Your task to perform on an android device: change timer sound Image 0: 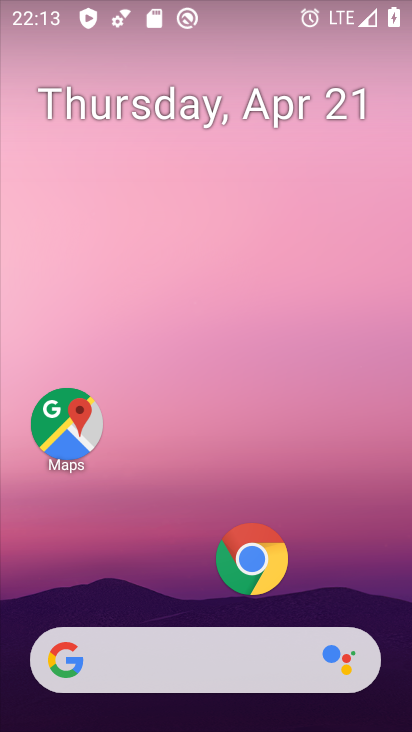
Step 0: drag from (152, 613) to (158, 226)
Your task to perform on an android device: change timer sound Image 1: 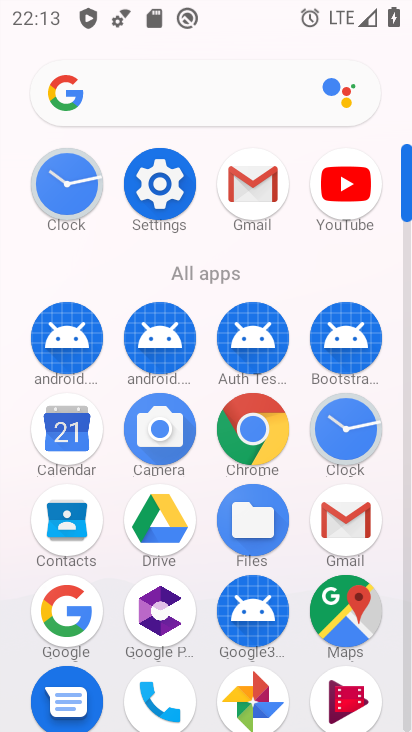
Step 1: click (356, 425)
Your task to perform on an android device: change timer sound Image 2: 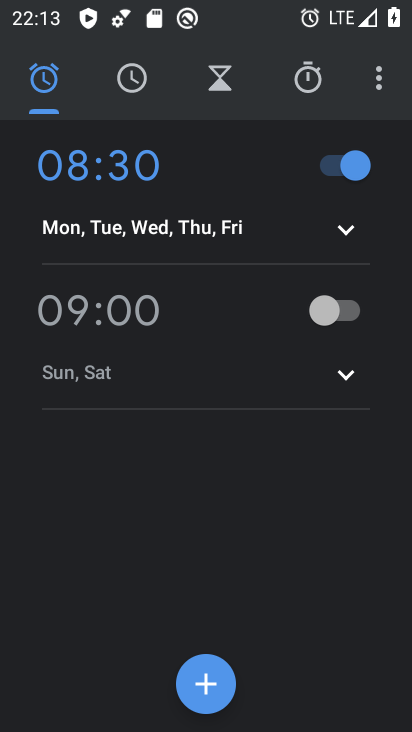
Step 2: click (382, 79)
Your task to perform on an android device: change timer sound Image 3: 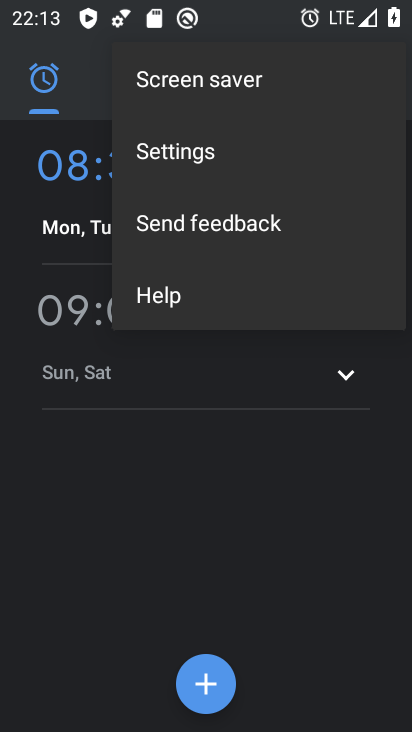
Step 3: click (194, 160)
Your task to perform on an android device: change timer sound Image 4: 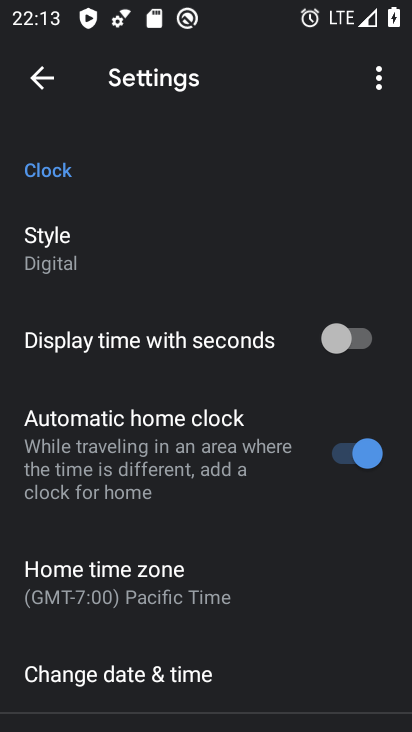
Step 4: drag from (256, 624) to (277, 244)
Your task to perform on an android device: change timer sound Image 5: 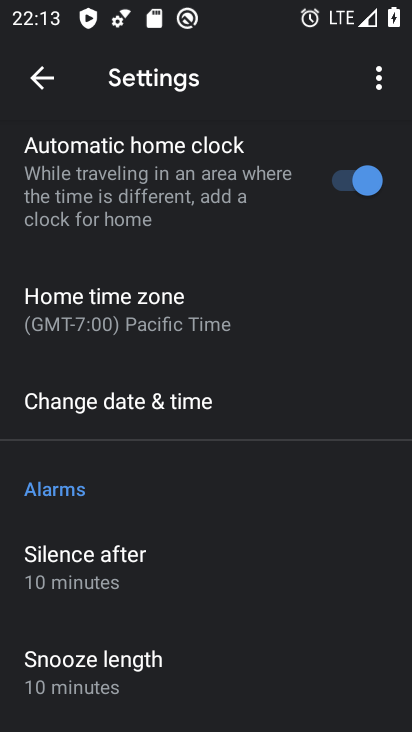
Step 5: drag from (200, 686) to (257, 376)
Your task to perform on an android device: change timer sound Image 6: 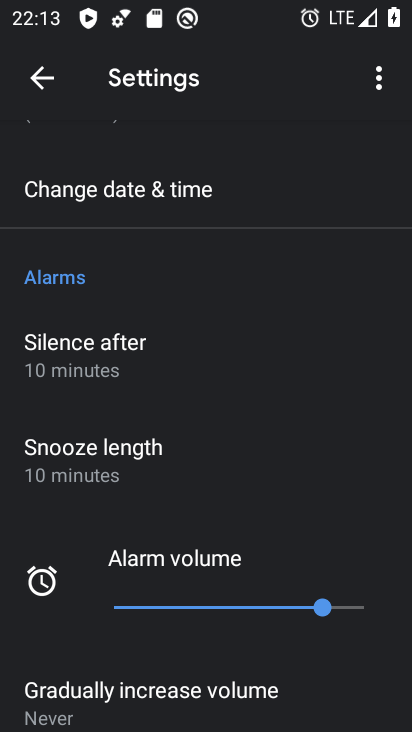
Step 6: drag from (167, 643) to (240, 353)
Your task to perform on an android device: change timer sound Image 7: 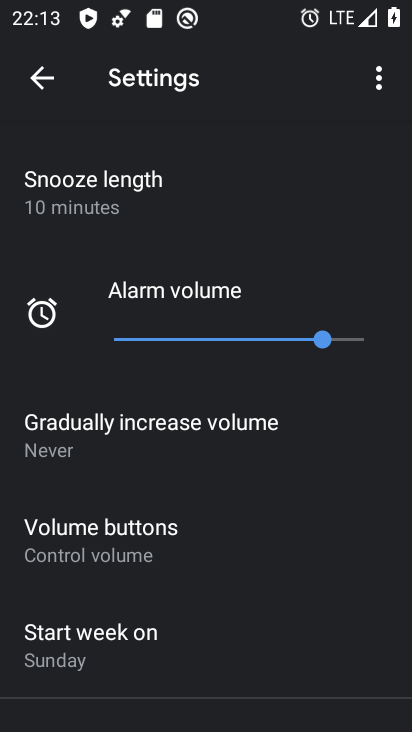
Step 7: drag from (191, 669) to (221, 443)
Your task to perform on an android device: change timer sound Image 8: 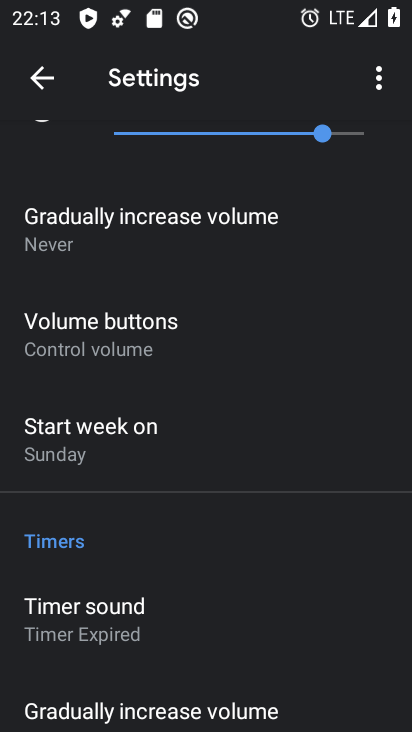
Step 8: click (82, 639)
Your task to perform on an android device: change timer sound Image 9: 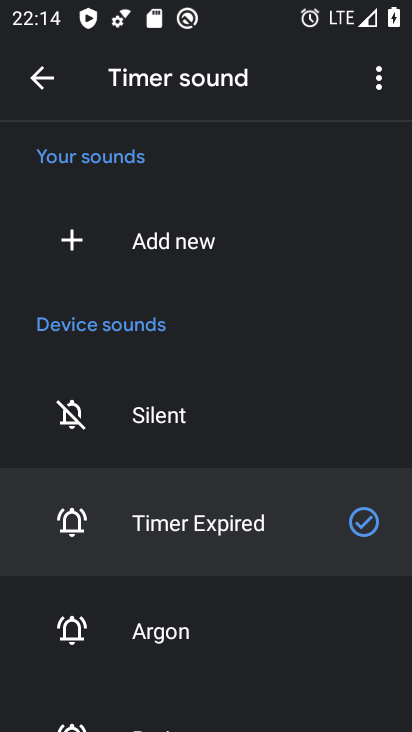
Step 9: click (140, 631)
Your task to perform on an android device: change timer sound Image 10: 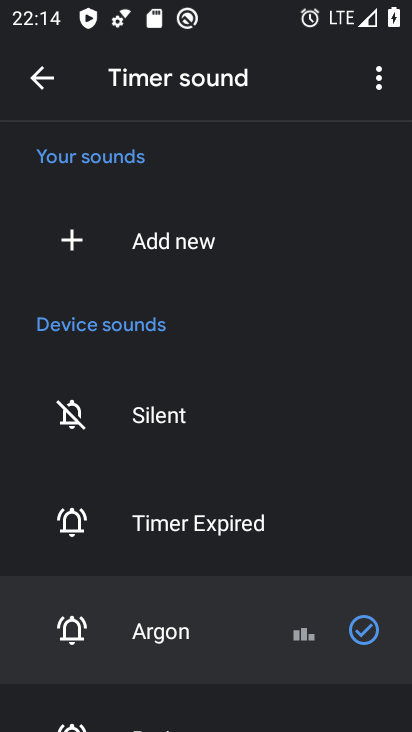
Step 10: task complete